Your task to perform on an android device: open app "Google Pay: Save, Pay, Manage" Image 0: 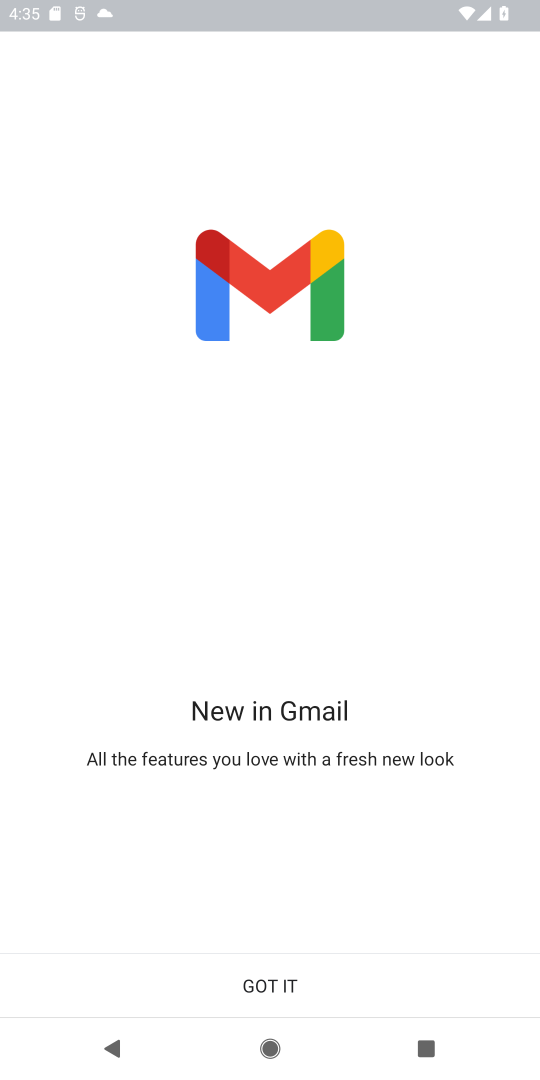
Step 0: press home button
Your task to perform on an android device: open app "Google Pay: Save, Pay, Manage" Image 1: 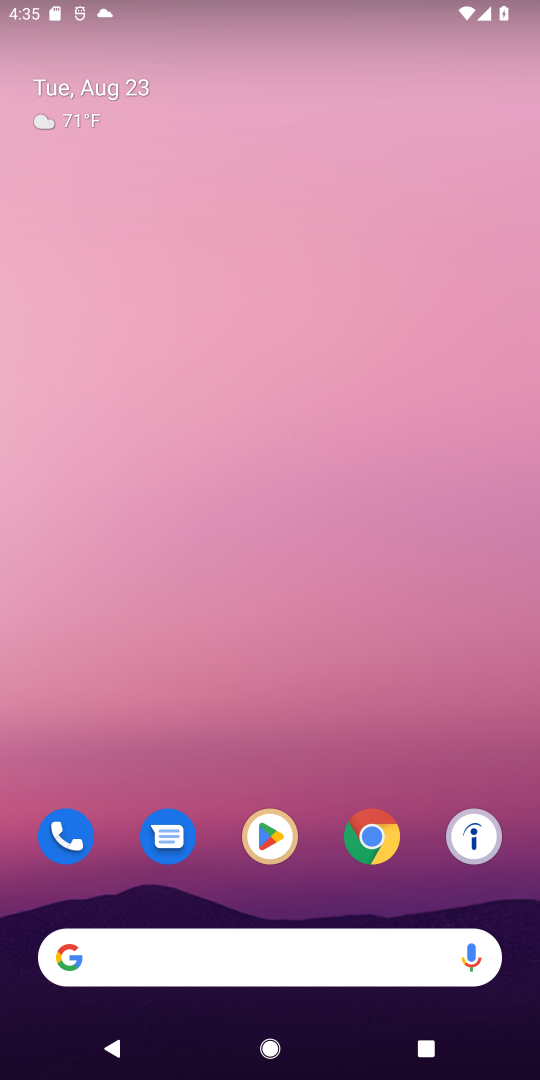
Step 1: click (276, 837)
Your task to perform on an android device: open app "Google Pay: Save, Pay, Manage" Image 2: 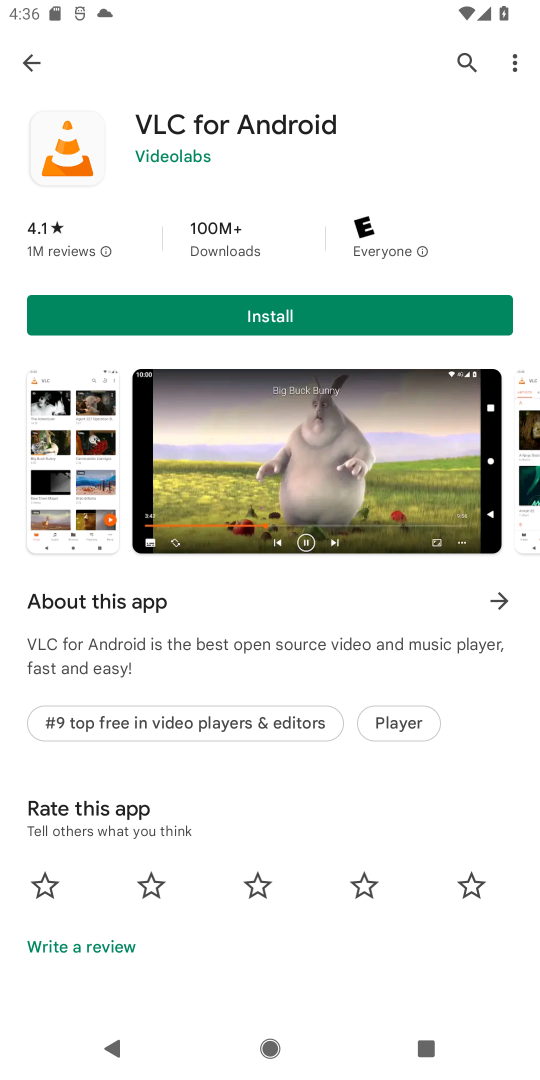
Step 2: click (462, 57)
Your task to perform on an android device: open app "Google Pay: Save, Pay, Manage" Image 3: 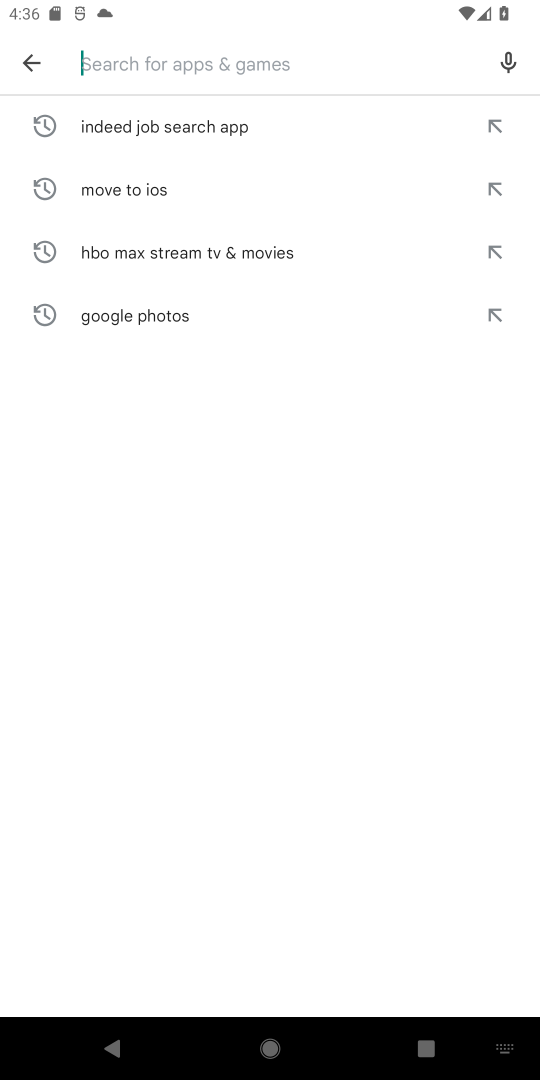
Step 3: type "Google Pay: Save, Pay, Manage"
Your task to perform on an android device: open app "Google Pay: Save, Pay, Manage" Image 4: 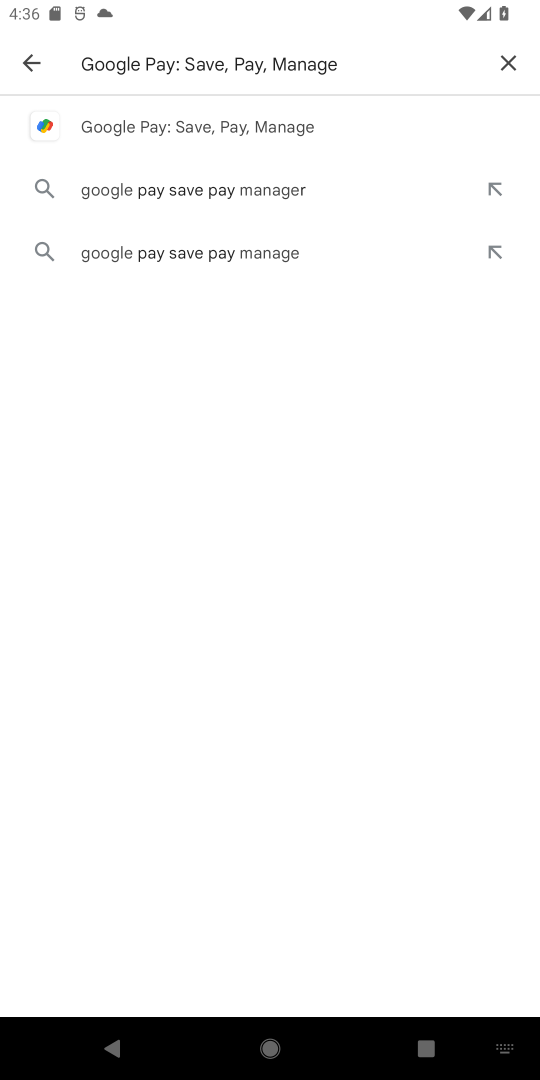
Step 4: click (138, 122)
Your task to perform on an android device: open app "Google Pay: Save, Pay, Manage" Image 5: 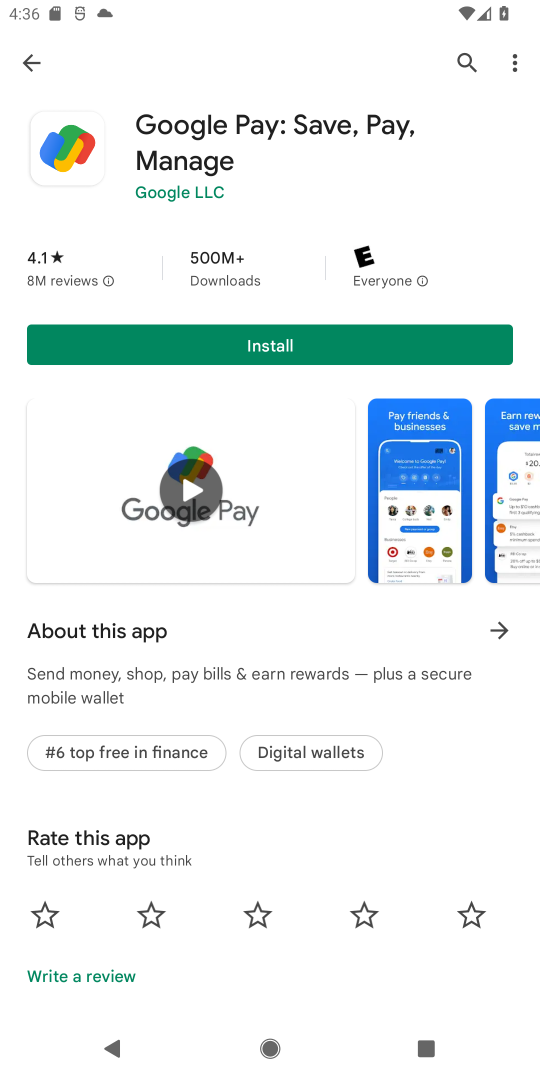
Step 5: task complete